Your task to perform on an android device: Open the calendar and show me this week's events Image 0: 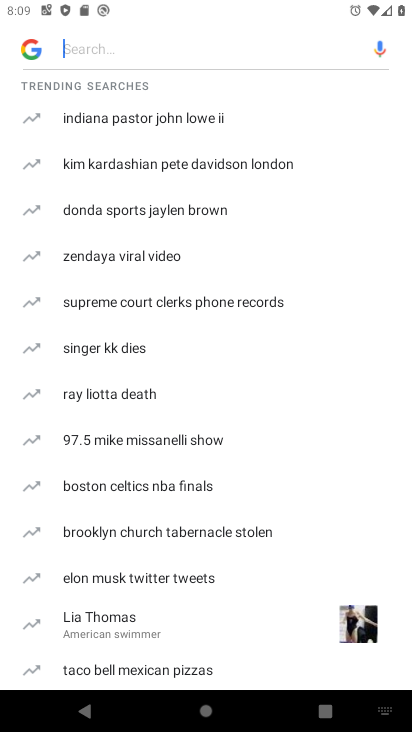
Step 0: press home button
Your task to perform on an android device: Open the calendar and show me this week's events Image 1: 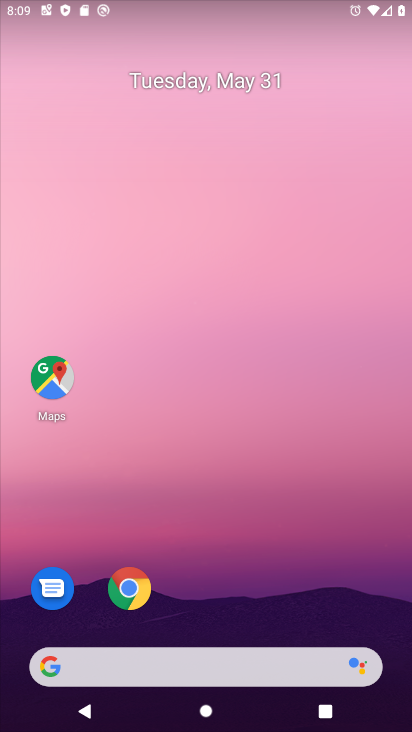
Step 1: drag from (208, 600) to (230, 131)
Your task to perform on an android device: Open the calendar and show me this week's events Image 2: 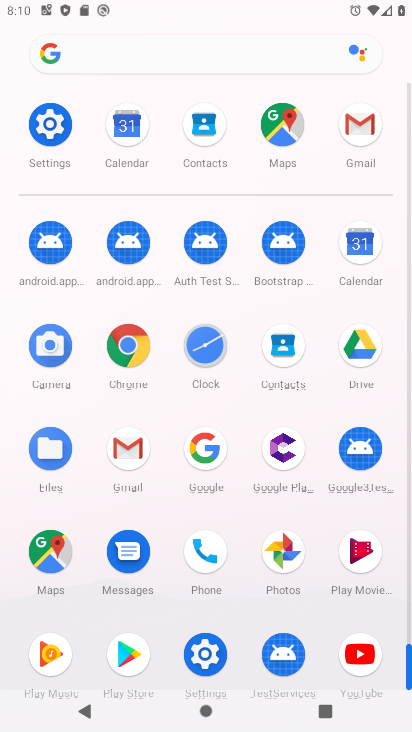
Step 2: click (349, 258)
Your task to perform on an android device: Open the calendar and show me this week's events Image 3: 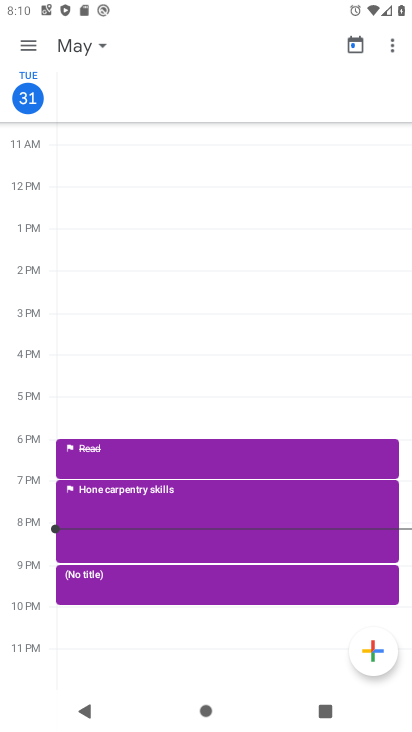
Step 3: click (25, 49)
Your task to perform on an android device: Open the calendar and show me this week's events Image 4: 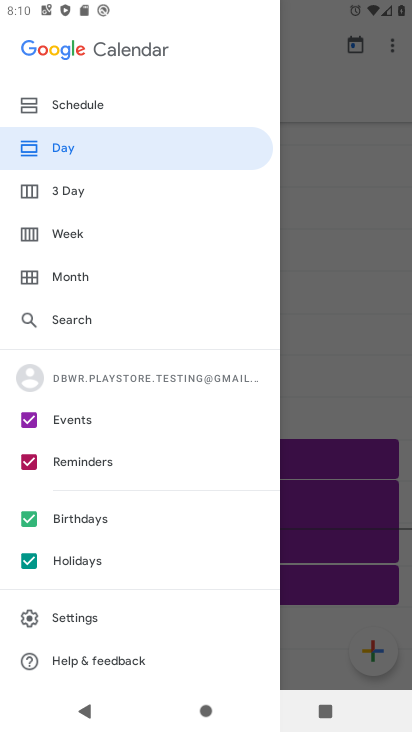
Step 4: click (83, 236)
Your task to perform on an android device: Open the calendar and show me this week's events Image 5: 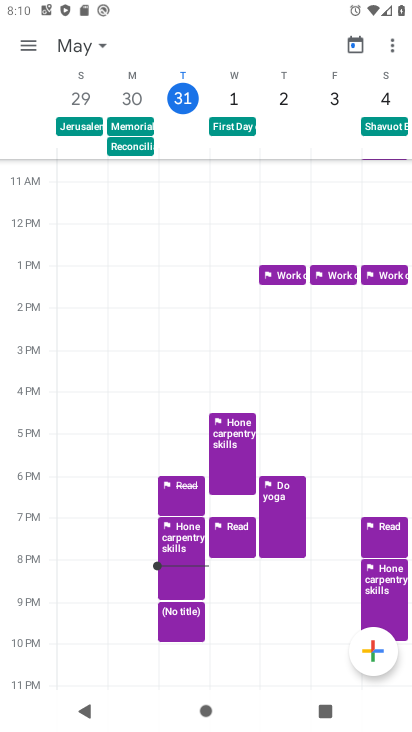
Step 5: click (26, 42)
Your task to perform on an android device: Open the calendar and show me this week's events Image 6: 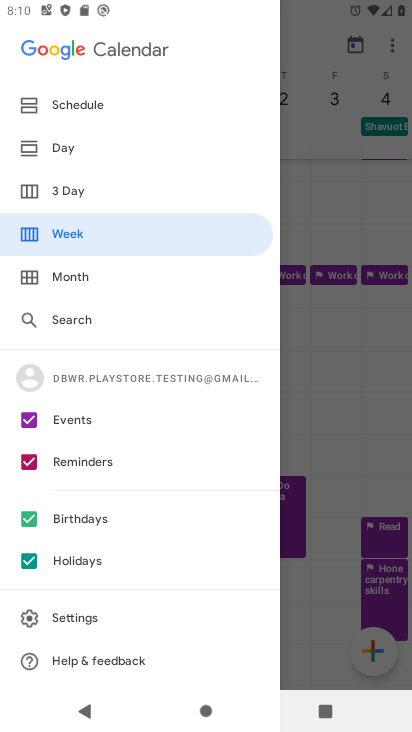
Step 6: click (91, 466)
Your task to perform on an android device: Open the calendar and show me this week's events Image 7: 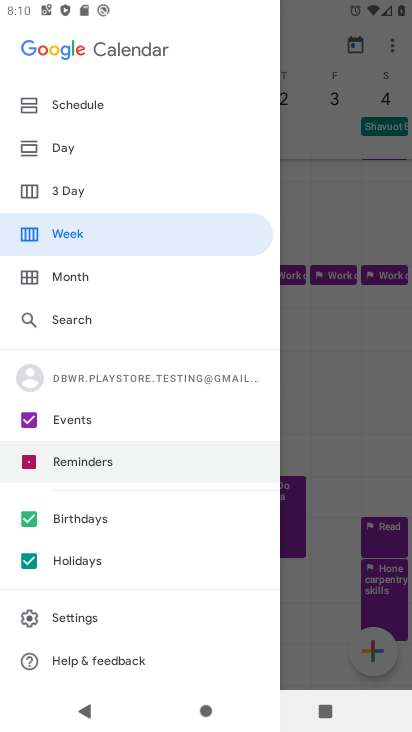
Step 7: click (93, 522)
Your task to perform on an android device: Open the calendar and show me this week's events Image 8: 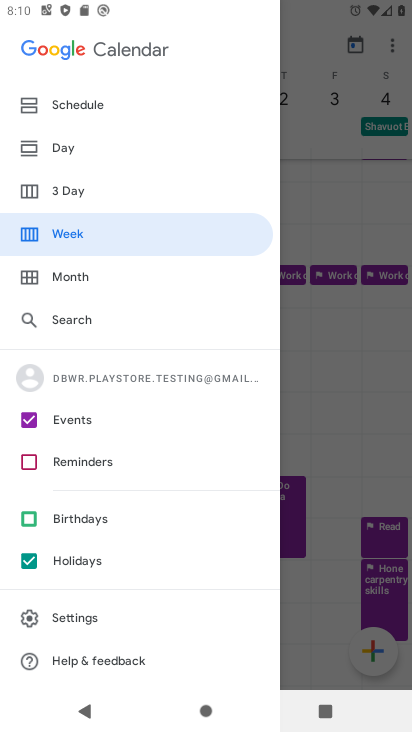
Step 8: click (90, 573)
Your task to perform on an android device: Open the calendar and show me this week's events Image 9: 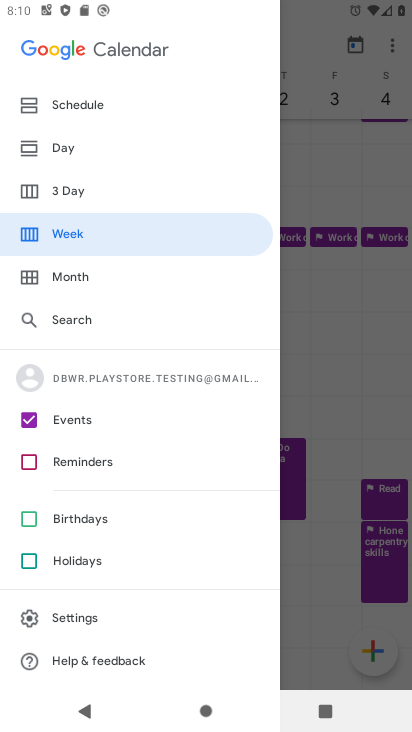
Step 9: click (100, 206)
Your task to perform on an android device: Open the calendar and show me this week's events Image 10: 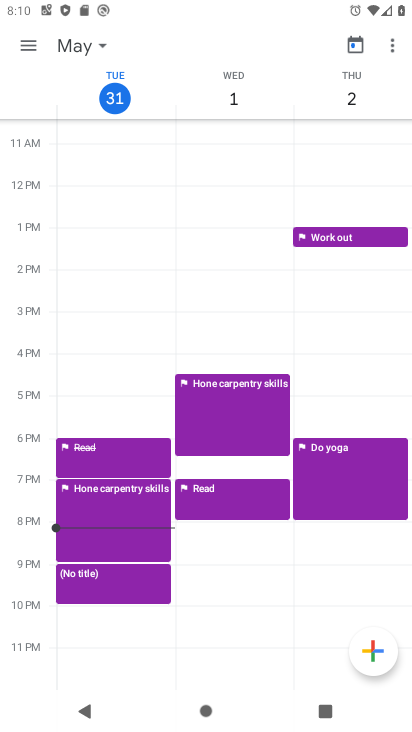
Step 10: click (41, 48)
Your task to perform on an android device: Open the calendar and show me this week's events Image 11: 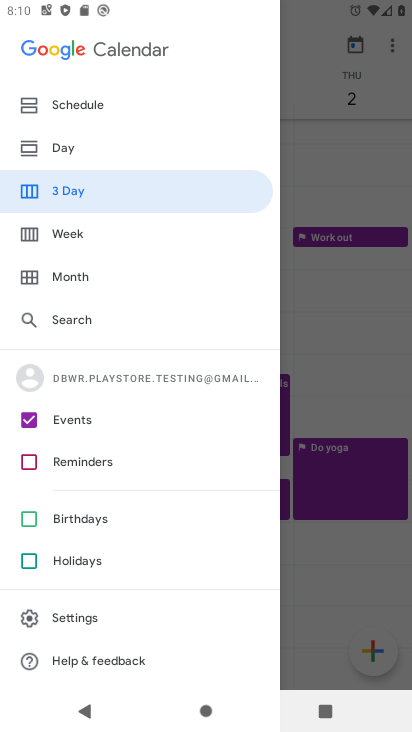
Step 11: click (77, 222)
Your task to perform on an android device: Open the calendar and show me this week's events Image 12: 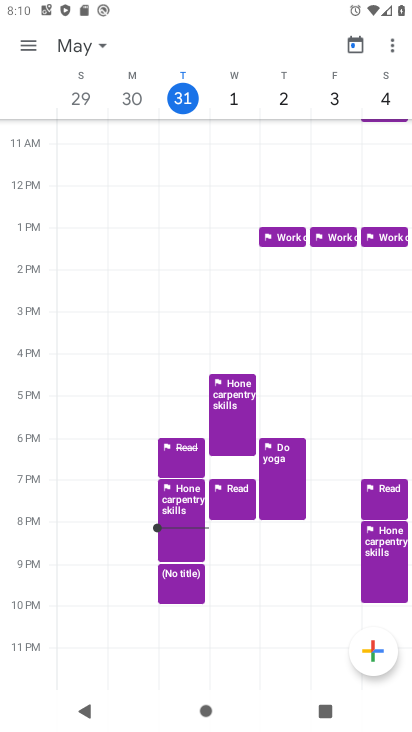
Step 12: task complete